Your task to perform on an android device: Search for vegetarian restaurants on Maps Image 0: 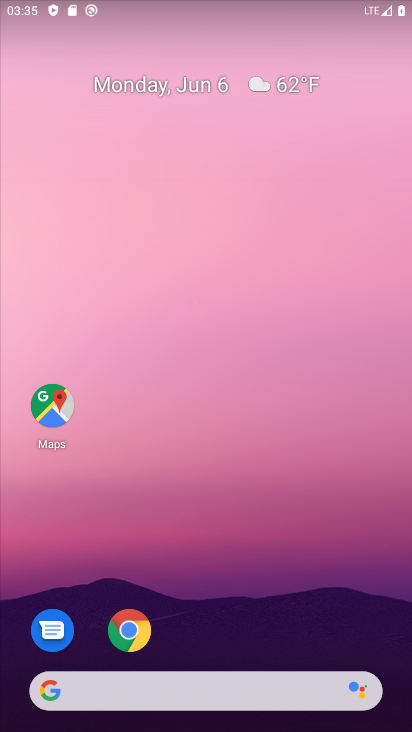
Step 0: press home button
Your task to perform on an android device: Search for vegetarian restaurants on Maps Image 1: 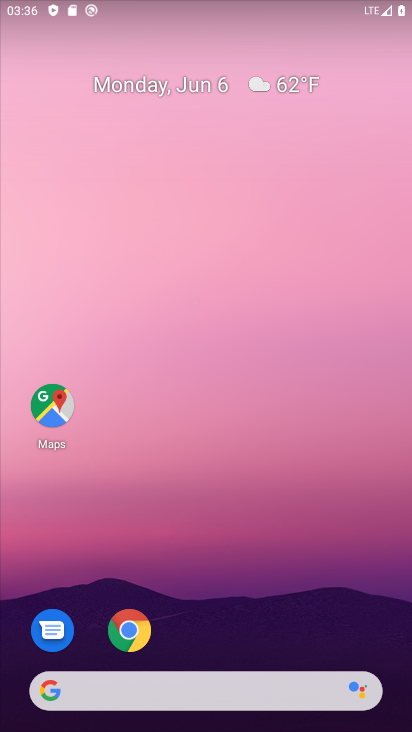
Step 1: click (61, 403)
Your task to perform on an android device: Search for vegetarian restaurants on Maps Image 2: 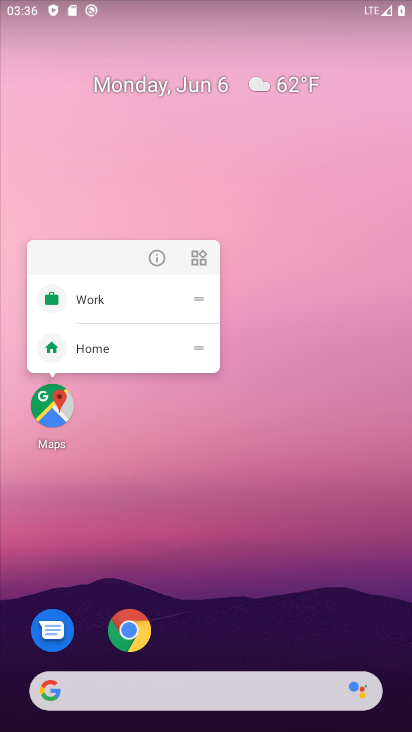
Step 2: click (55, 428)
Your task to perform on an android device: Search for vegetarian restaurants on Maps Image 3: 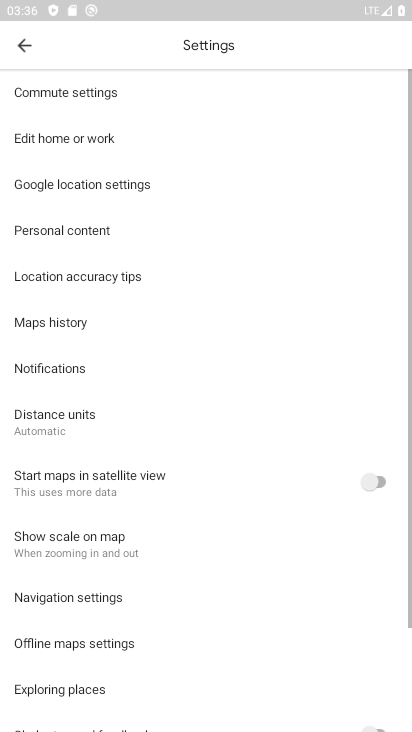
Step 3: click (19, 48)
Your task to perform on an android device: Search for vegetarian restaurants on Maps Image 4: 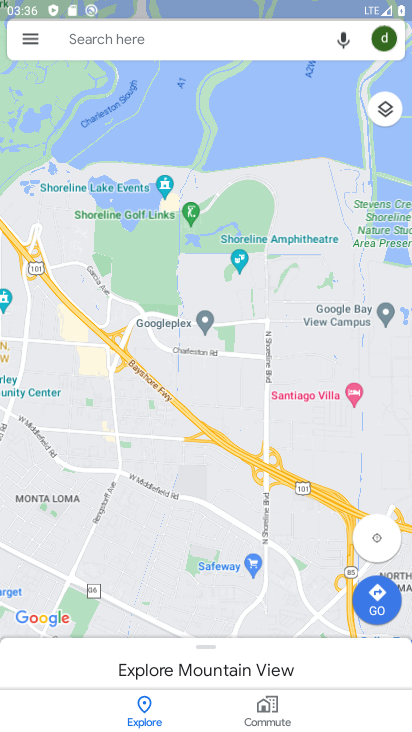
Step 4: click (19, 48)
Your task to perform on an android device: Search for vegetarian restaurants on Maps Image 5: 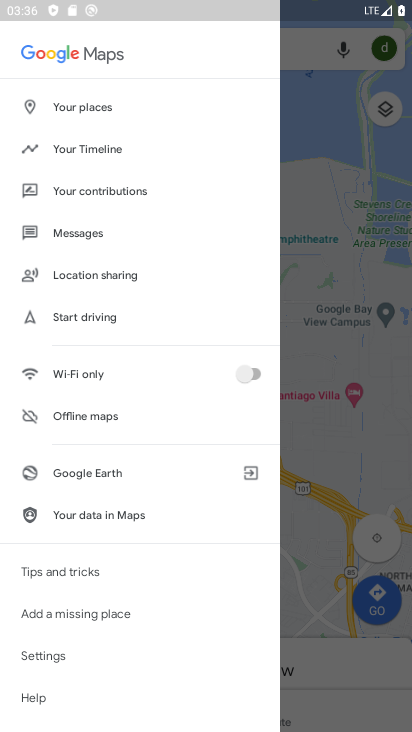
Step 5: click (318, 354)
Your task to perform on an android device: Search for vegetarian restaurants on Maps Image 6: 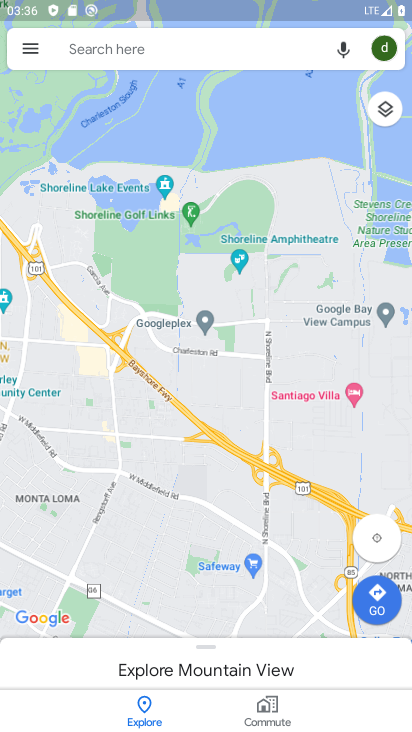
Step 6: click (290, 40)
Your task to perform on an android device: Search for vegetarian restaurants on Maps Image 7: 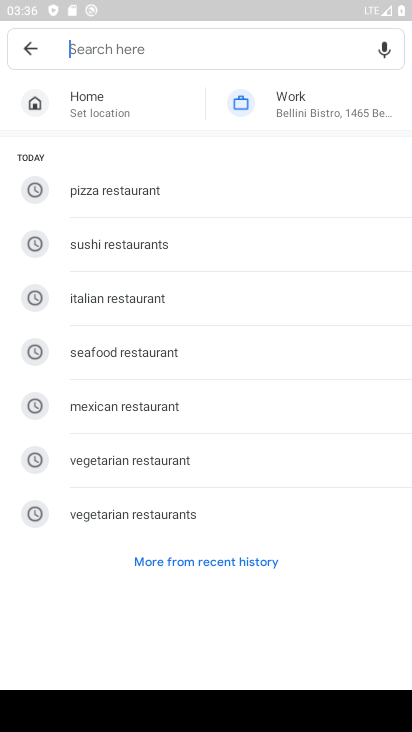
Step 7: type "vegetarian restaurants "
Your task to perform on an android device: Search for vegetarian restaurants on Maps Image 8: 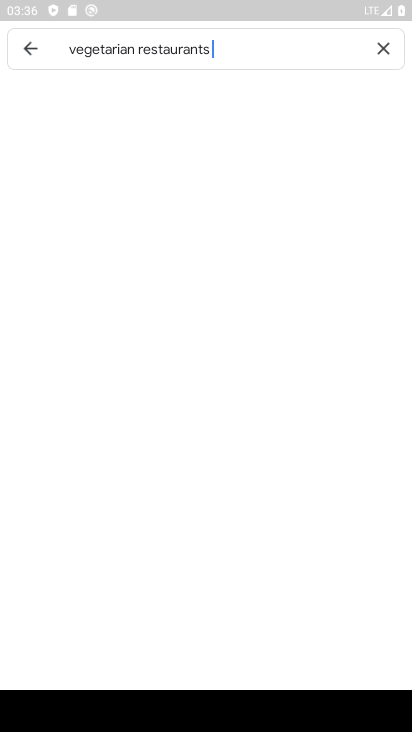
Step 8: type ""
Your task to perform on an android device: Search for vegetarian restaurants on Maps Image 9: 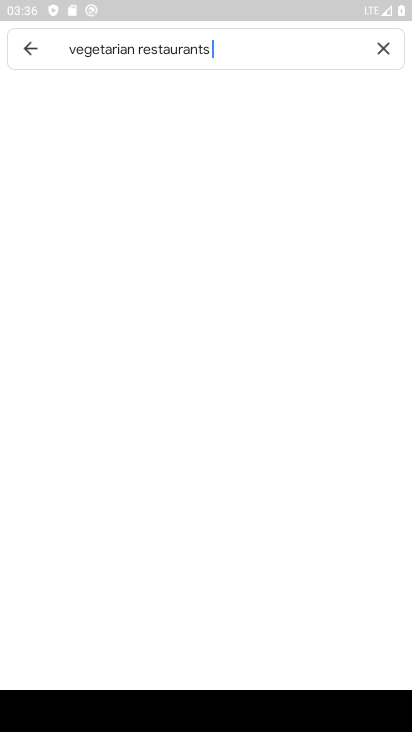
Step 9: click (144, 108)
Your task to perform on an android device: Search for vegetarian restaurants on Maps Image 10: 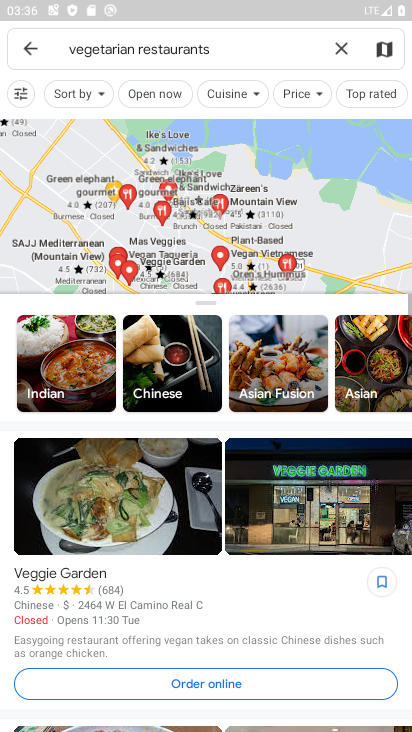
Step 10: task complete